Your task to perform on an android device: Show me productivity apps on the Play Store Image 0: 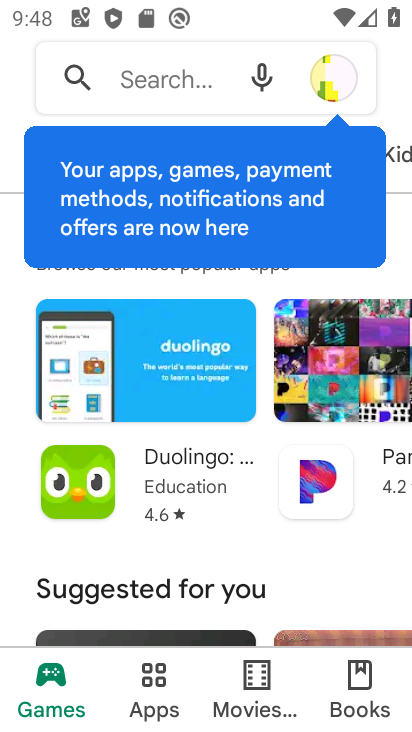
Step 0: click (165, 669)
Your task to perform on an android device: Show me productivity apps on the Play Store Image 1: 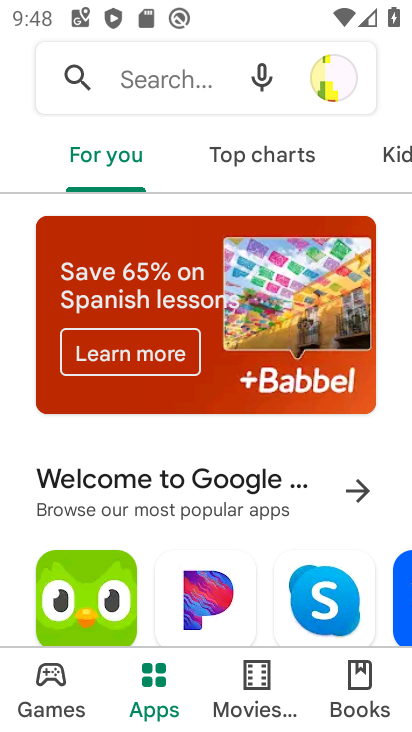
Step 1: drag from (390, 158) to (59, 109)
Your task to perform on an android device: Show me productivity apps on the Play Store Image 2: 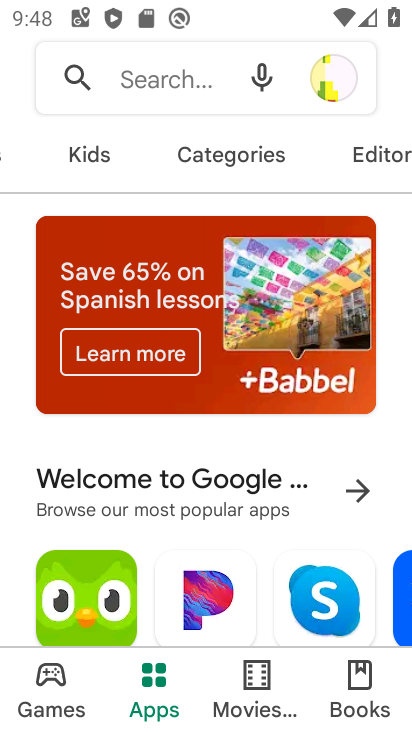
Step 2: click (266, 160)
Your task to perform on an android device: Show me productivity apps on the Play Store Image 3: 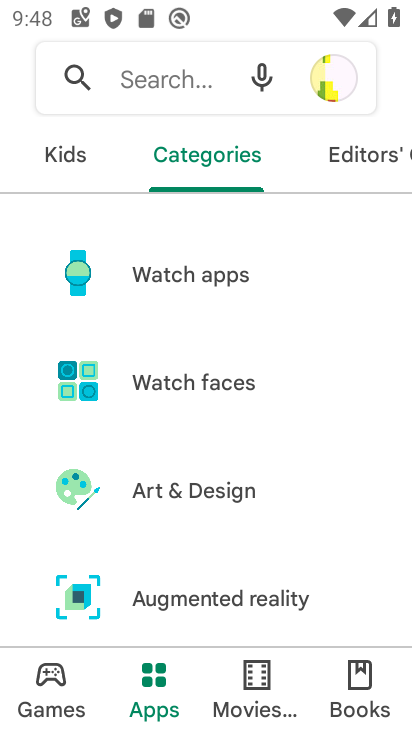
Step 3: drag from (215, 513) to (248, 165)
Your task to perform on an android device: Show me productivity apps on the Play Store Image 4: 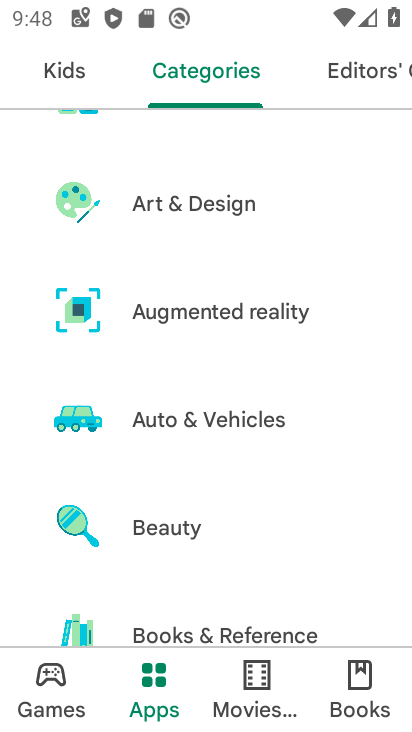
Step 4: drag from (183, 490) to (248, 122)
Your task to perform on an android device: Show me productivity apps on the Play Store Image 5: 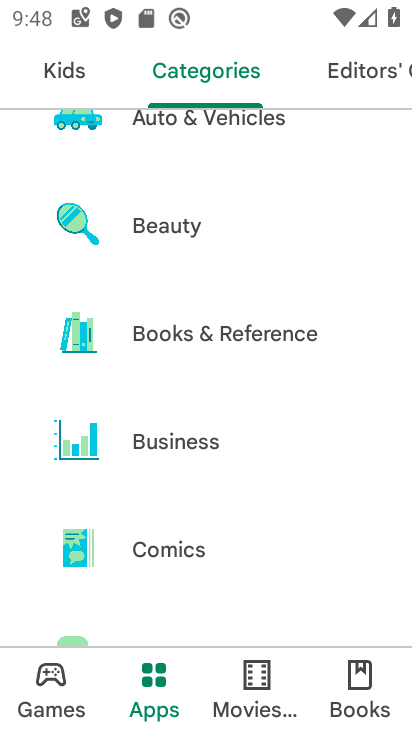
Step 5: drag from (180, 440) to (241, 70)
Your task to perform on an android device: Show me productivity apps on the Play Store Image 6: 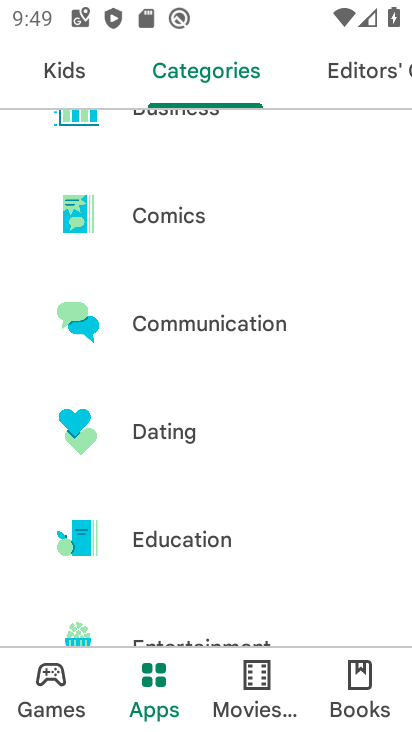
Step 6: drag from (189, 502) to (231, 211)
Your task to perform on an android device: Show me productivity apps on the Play Store Image 7: 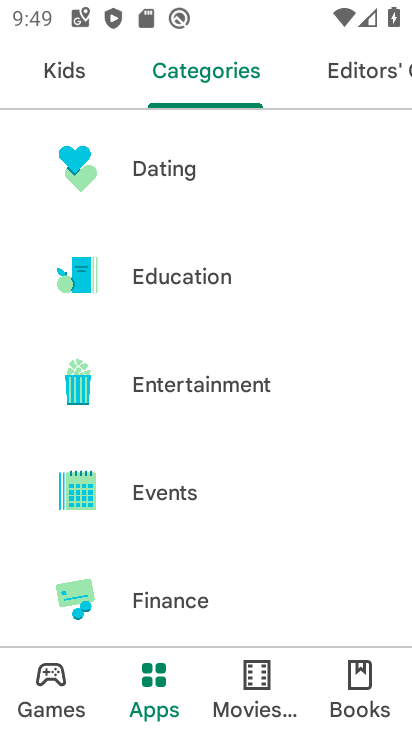
Step 7: drag from (185, 547) to (215, 266)
Your task to perform on an android device: Show me productivity apps on the Play Store Image 8: 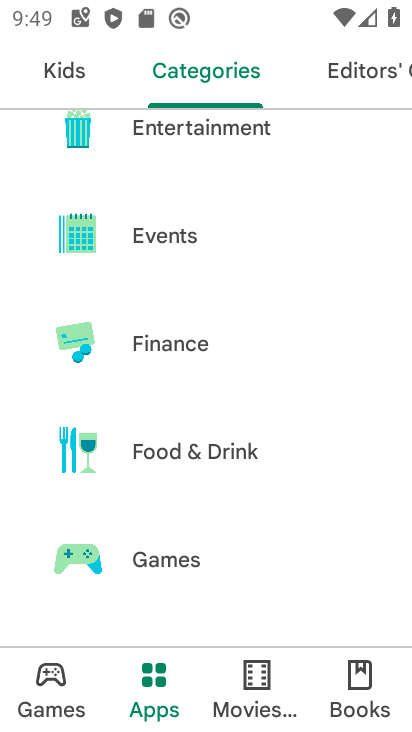
Step 8: drag from (180, 577) to (197, 197)
Your task to perform on an android device: Show me productivity apps on the Play Store Image 9: 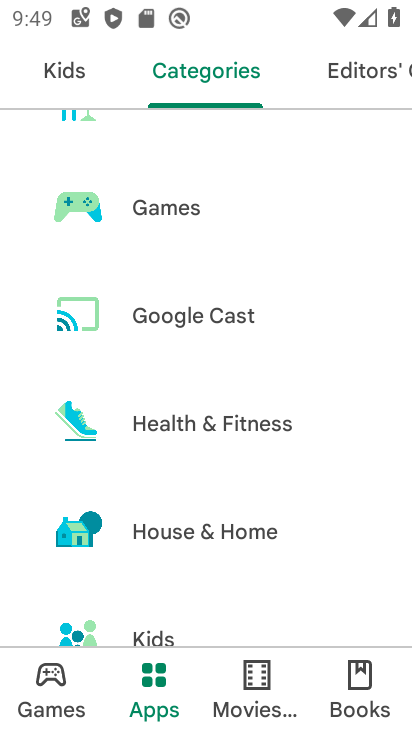
Step 9: drag from (160, 538) to (182, 178)
Your task to perform on an android device: Show me productivity apps on the Play Store Image 10: 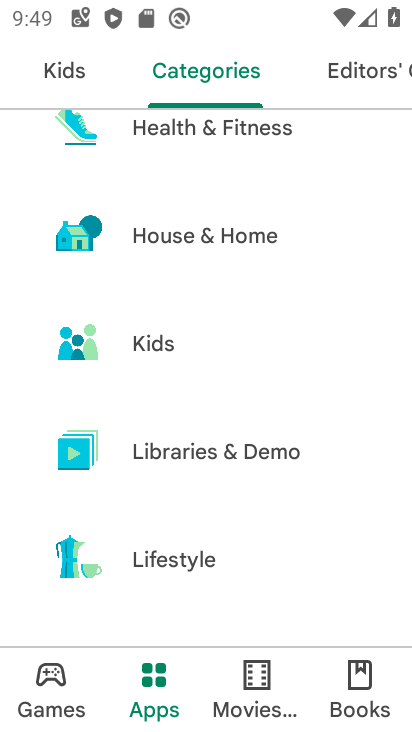
Step 10: drag from (141, 503) to (207, 15)
Your task to perform on an android device: Show me productivity apps on the Play Store Image 11: 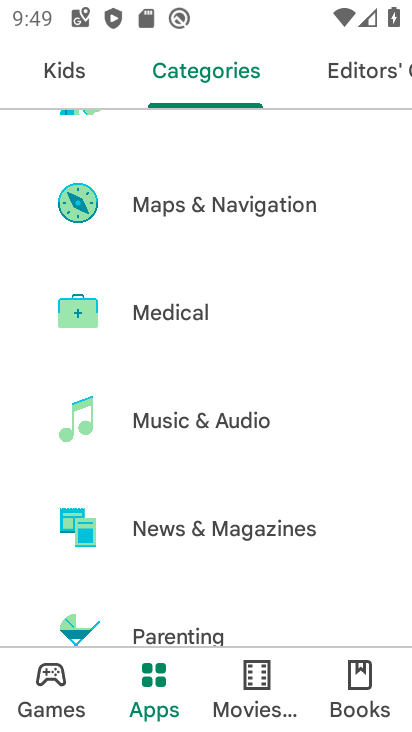
Step 11: drag from (195, 466) to (233, 119)
Your task to perform on an android device: Show me productivity apps on the Play Store Image 12: 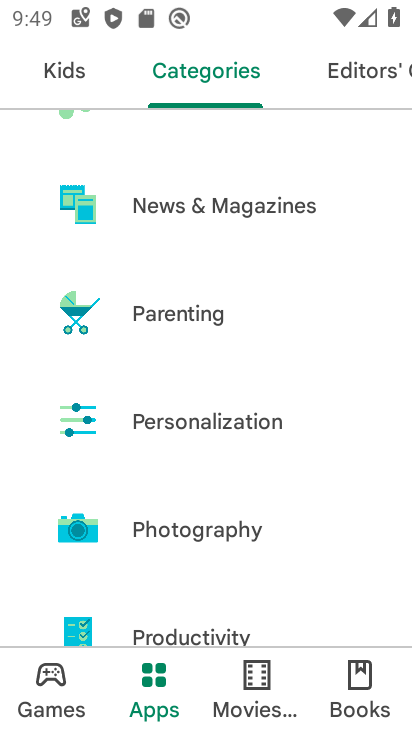
Step 12: drag from (193, 493) to (224, 207)
Your task to perform on an android device: Show me productivity apps on the Play Store Image 13: 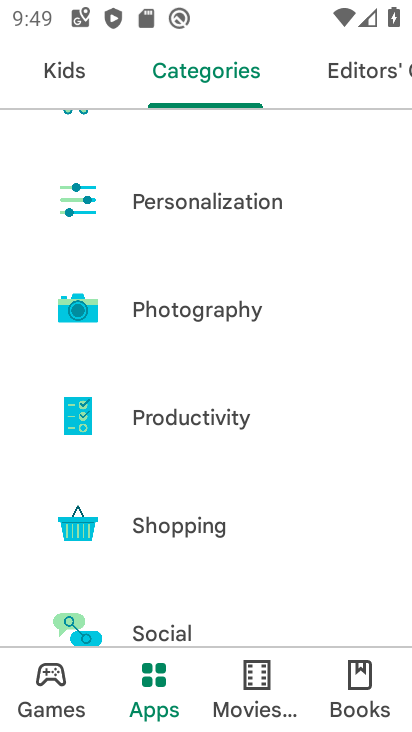
Step 13: click (199, 427)
Your task to perform on an android device: Show me productivity apps on the Play Store Image 14: 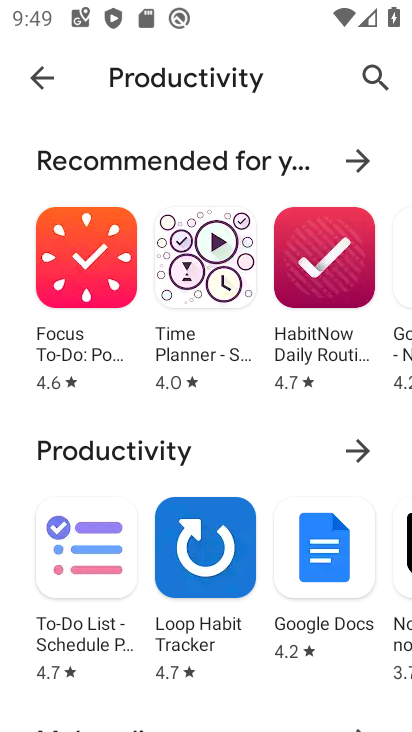
Step 14: task complete